Your task to perform on an android device: Go to ESPN.com Image 0: 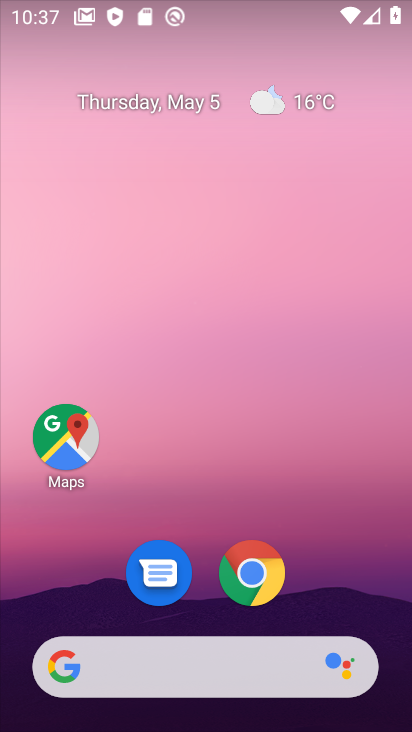
Step 0: drag from (328, 552) to (321, 234)
Your task to perform on an android device: Go to ESPN.com Image 1: 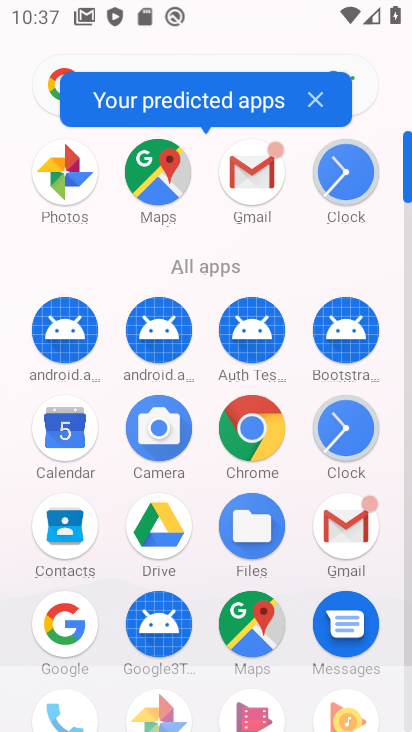
Step 1: click (257, 447)
Your task to perform on an android device: Go to ESPN.com Image 2: 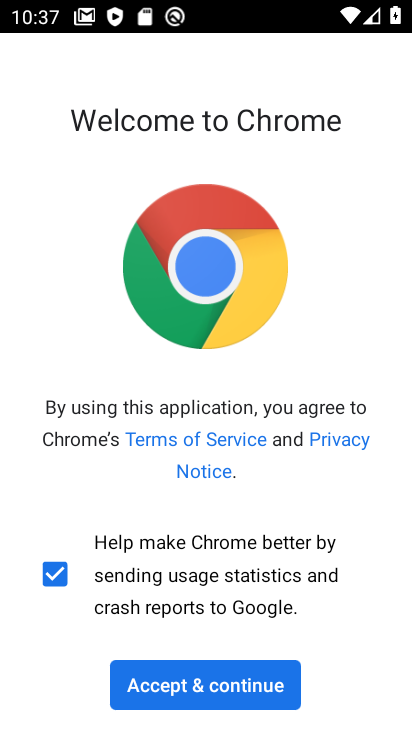
Step 2: click (193, 678)
Your task to perform on an android device: Go to ESPN.com Image 3: 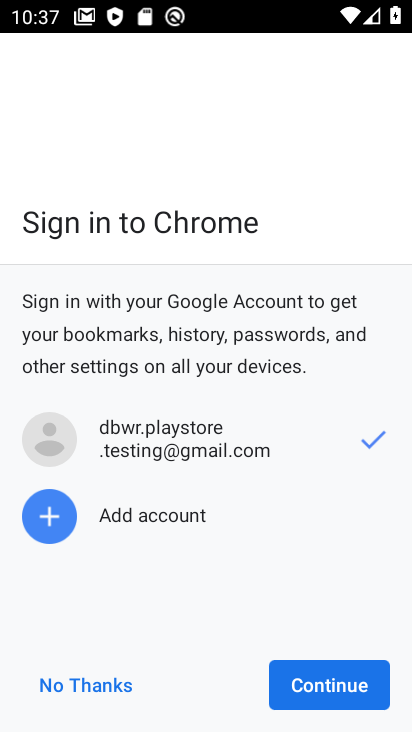
Step 3: click (293, 677)
Your task to perform on an android device: Go to ESPN.com Image 4: 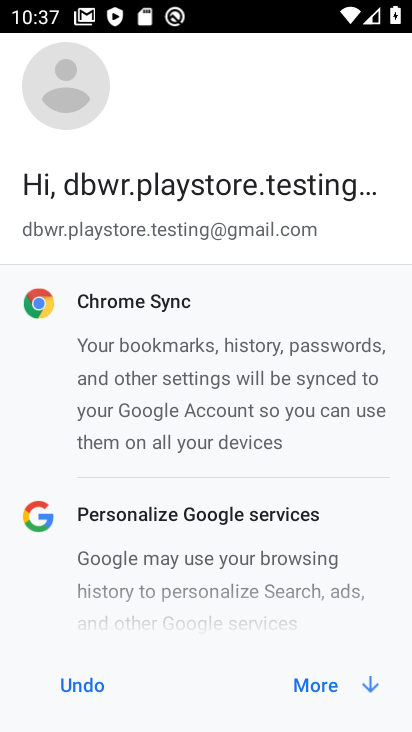
Step 4: click (293, 677)
Your task to perform on an android device: Go to ESPN.com Image 5: 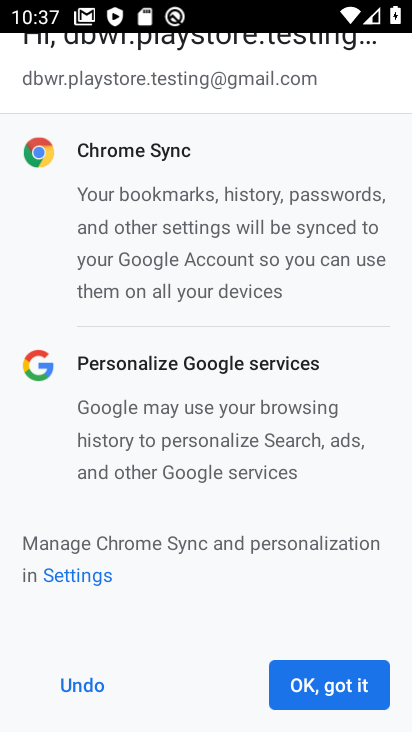
Step 5: click (293, 677)
Your task to perform on an android device: Go to ESPN.com Image 6: 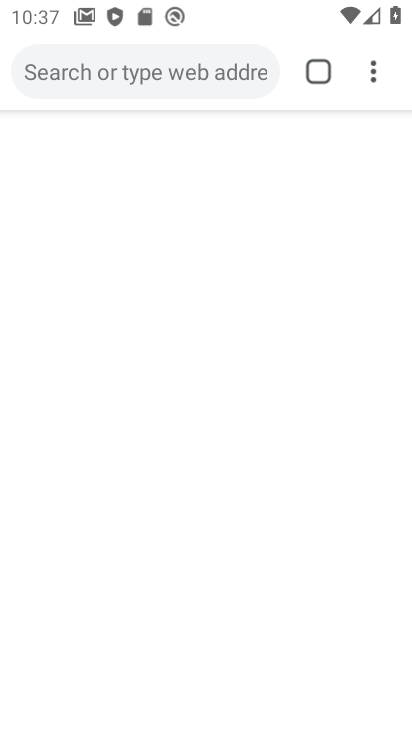
Step 6: click (318, 677)
Your task to perform on an android device: Go to ESPN.com Image 7: 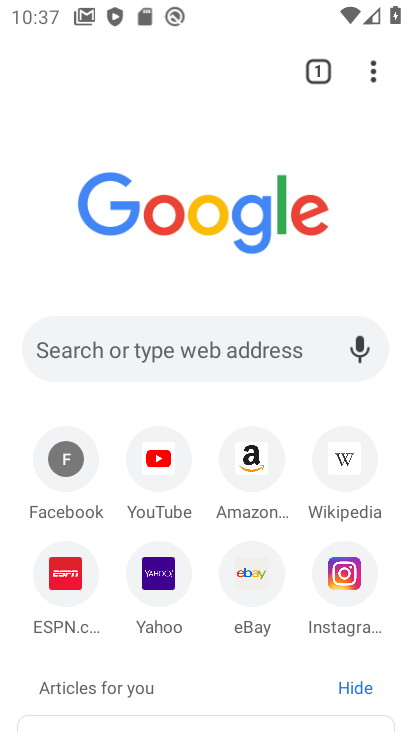
Step 7: click (51, 616)
Your task to perform on an android device: Go to ESPN.com Image 8: 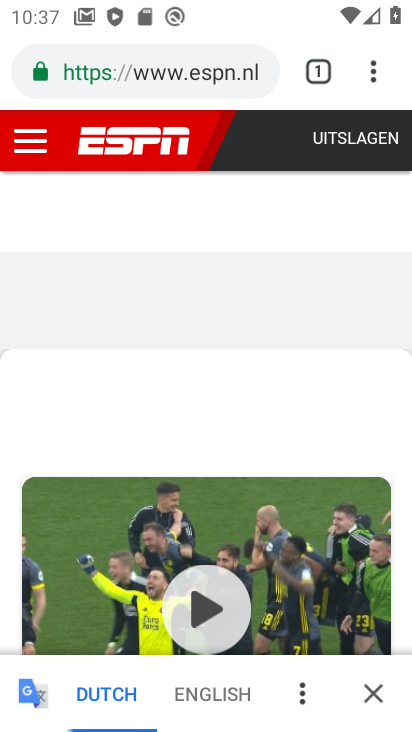
Step 8: task complete